Your task to perform on an android device: open device folders in google photos Image 0: 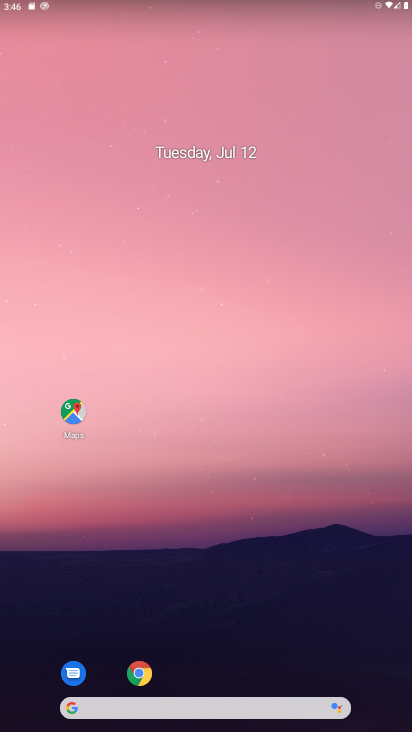
Step 0: drag from (181, 709) to (183, 239)
Your task to perform on an android device: open device folders in google photos Image 1: 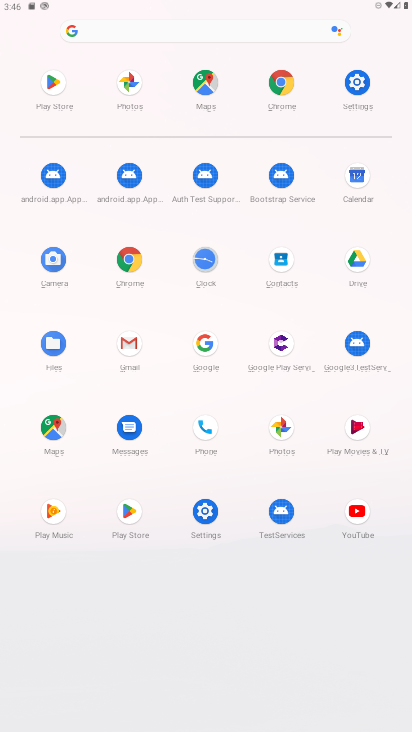
Step 1: click (281, 427)
Your task to perform on an android device: open device folders in google photos Image 2: 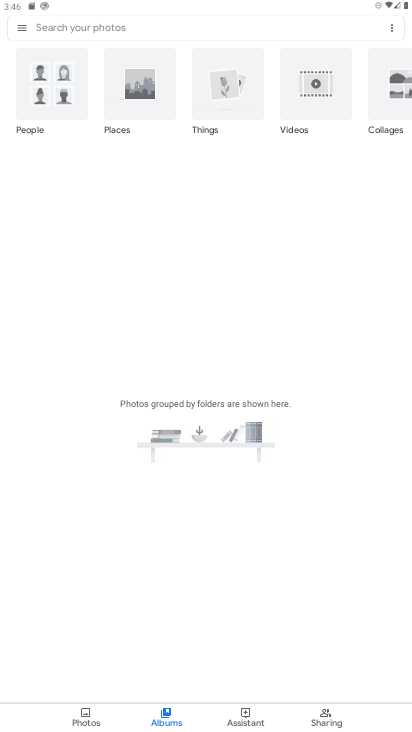
Step 2: click (18, 28)
Your task to perform on an android device: open device folders in google photos Image 3: 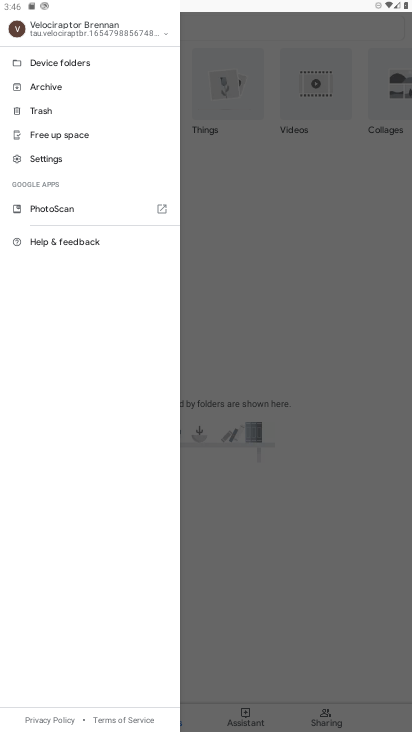
Step 3: click (37, 63)
Your task to perform on an android device: open device folders in google photos Image 4: 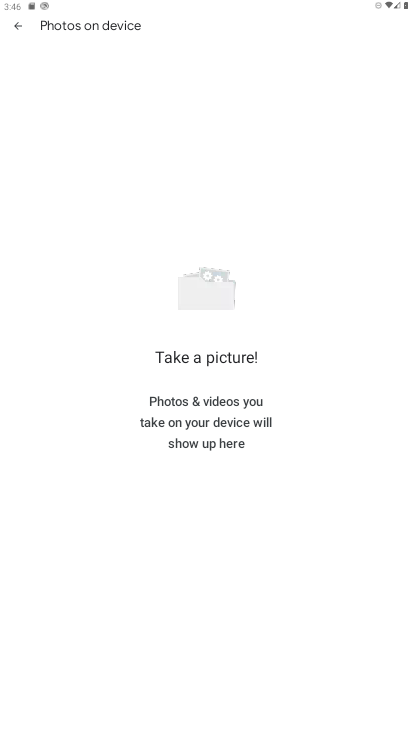
Step 4: task complete